Your task to perform on an android device: manage bookmarks in the chrome app Image 0: 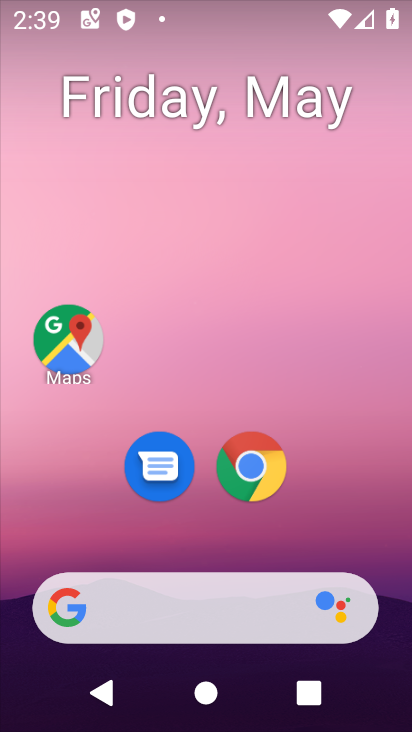
Step 0: click (248, 457)
Your task to perform on an android device: manage bookmarks in the chrome app Image 1: 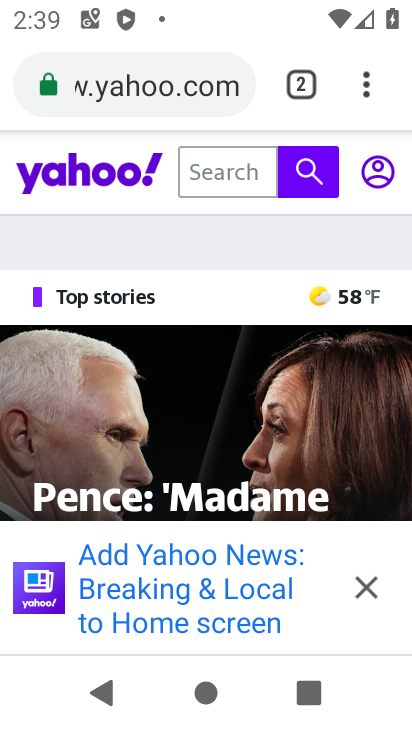
Step 1: drag from (363, 85) to (195, 327)
Your task to perform on an android device: manage bookmarks in the chrome app Image 2: 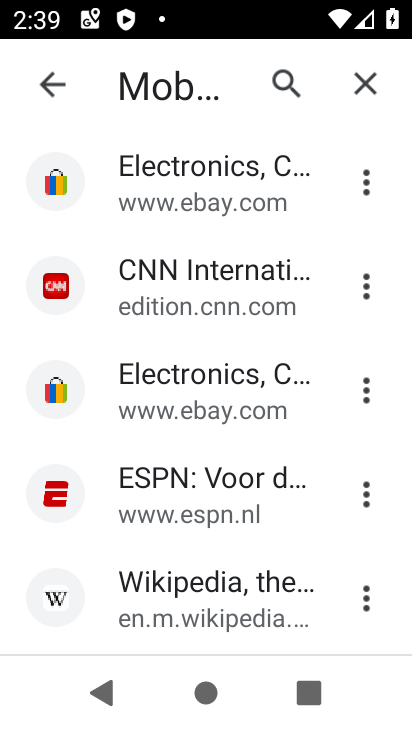
Step 2: click (370, 175)
Your task to perform on an android device: manage bookmarks in the chrome app Image 3: 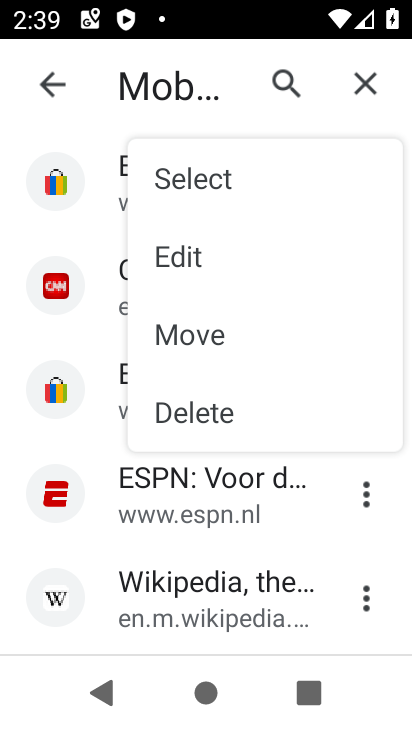
Step 3: click (199, 406)
Your task to perform on an android device: manage bookmarks in the chrome app Image 4: 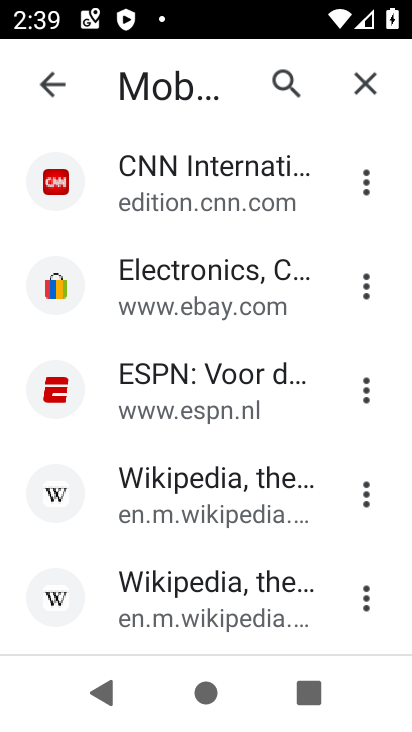
Step 4: task complete